Your task to perform on an android device: toggle wifi Image 0: 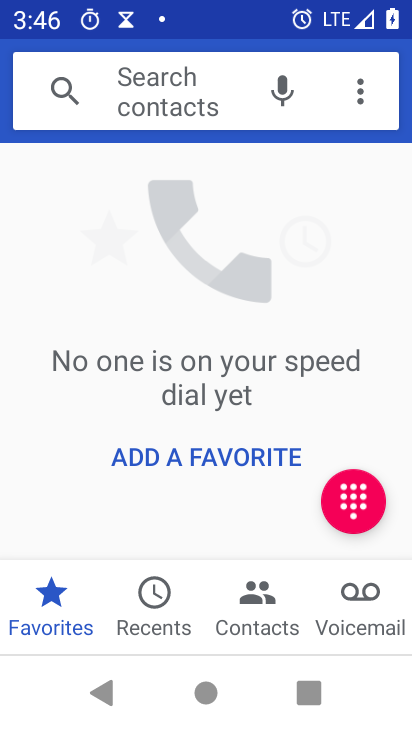
Step 0: press home button
Your task to perform on an android device: toggle wifi Image 1: 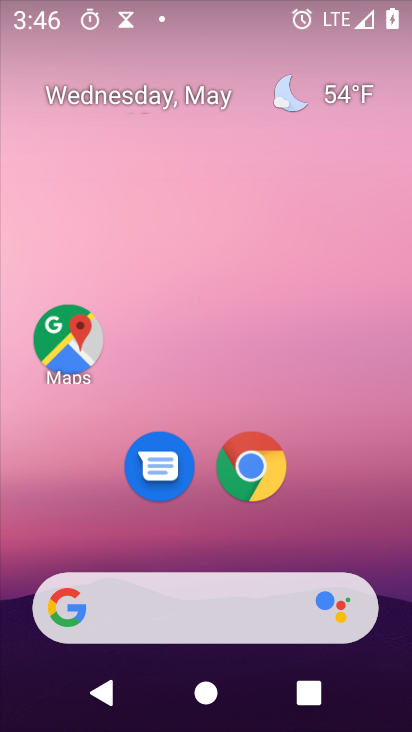
Step 1: drag from (394, 508) to (270, 82)
Your task to perform on an android device: toggle wifi Image 2: 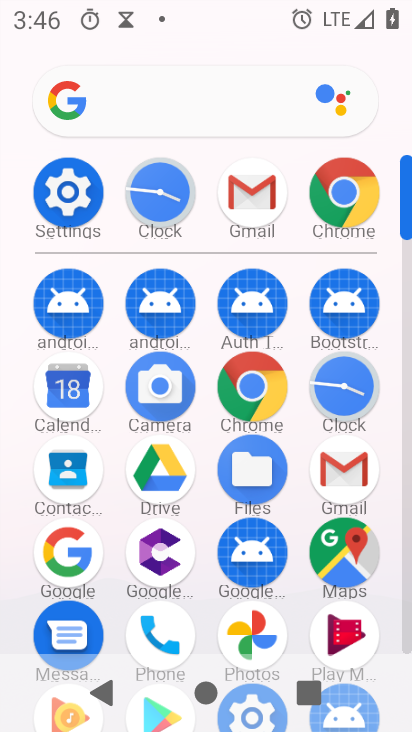
Step 2: click (57, 176)
Your task to perform on an android device: toggle wifi Image 3: 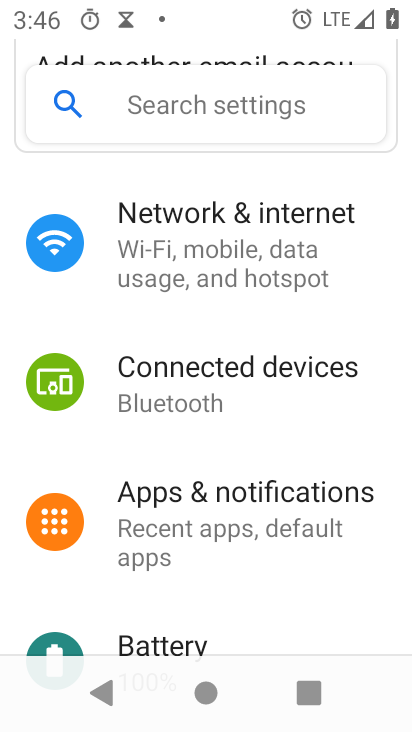
Step 3: click (150, 238)
Your task to perform on an android device: toggle wifi Image 4: 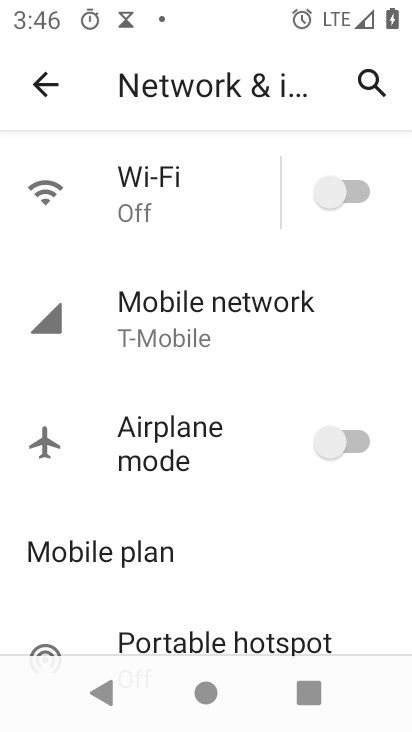
Step 4: click (340, 197)
Your task to perform on an android device: toggle wifi Image 5: 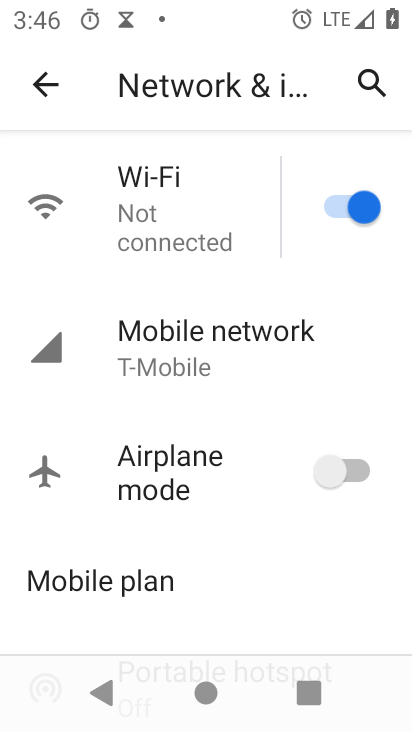
Step 5: task complete